Your task to perform on an android device: open sync settings in chrome Image 0: 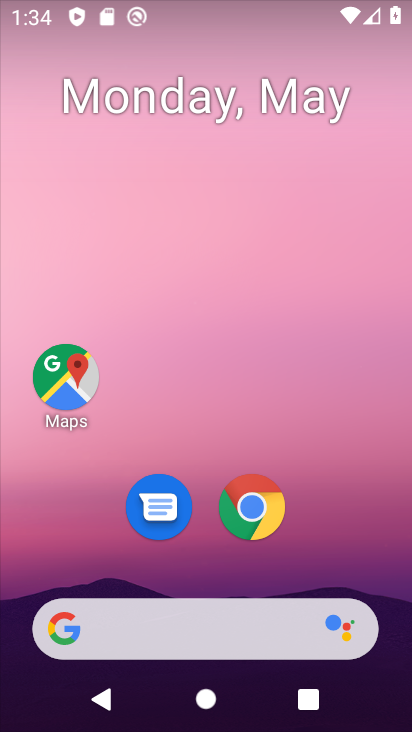
Step 0: drag from (312, 508) to (327, 141)
Your task to perform on an android device: open sync settings in chrome Image 1: 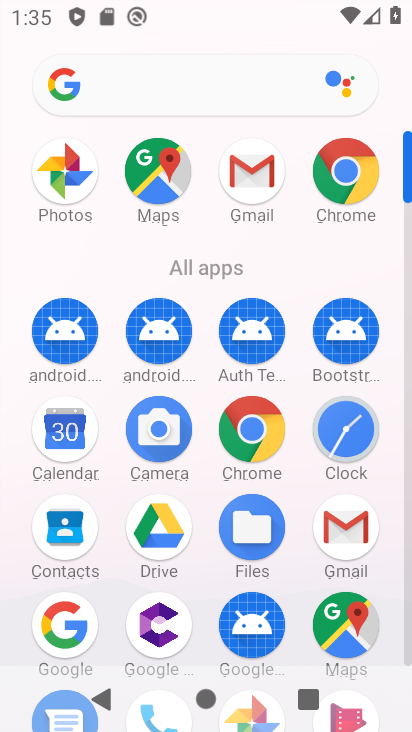
Step 1: click (267, 456)
Your task to perform on an android device: open sync settings in chrome Image 2: 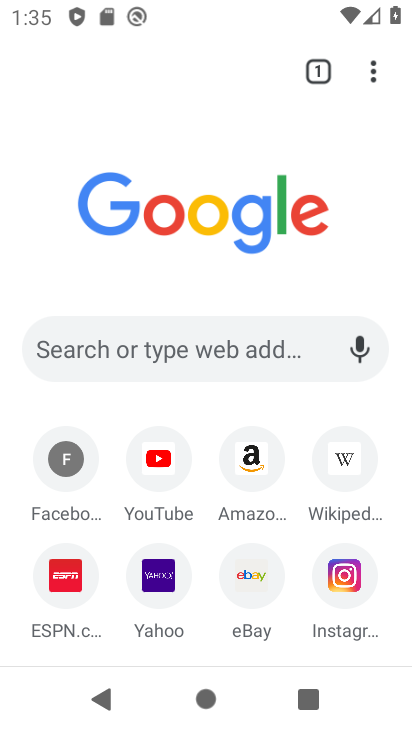
Step 2: drag from (295, 554) to (310, 224)
Your task to perform on an android device: open sync settings in chrome Image 3: 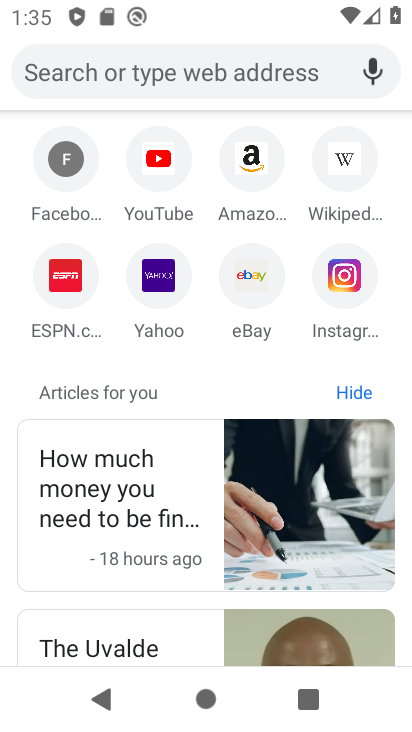
Step 3: drag from (297, 167) to (252, 468)
Your task to perform on an android device: open sync settings in chrome Image 4: 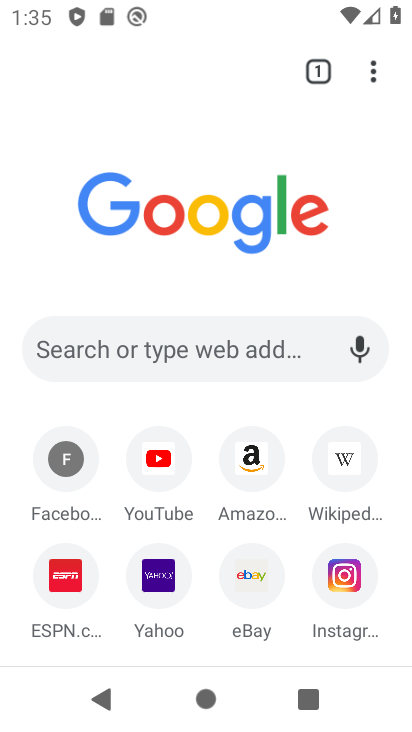
Step 4: click (371, 80)
Your task to perform on an android device: open sync settings in chrome Image 5: 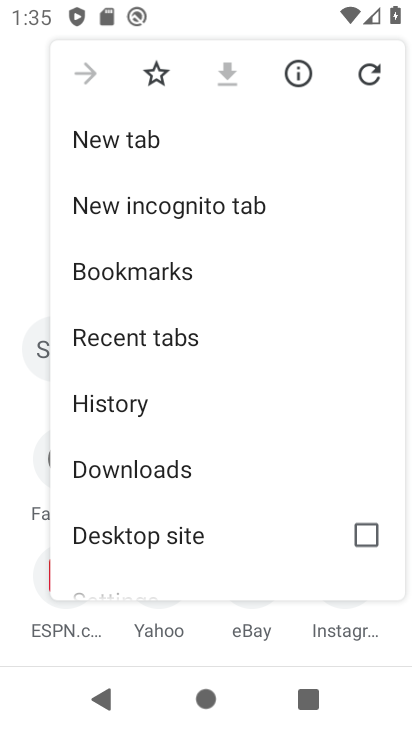
Step 5: drag from (178, 492) to (215, 226)
Your task to perform on an android device: open sync settings in chrome Image 6: 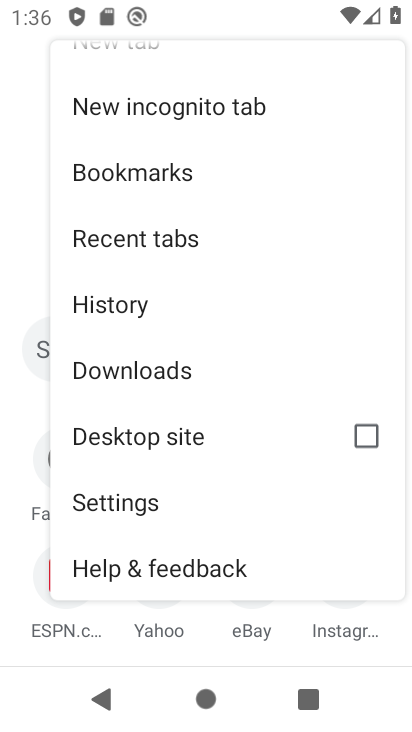
Step 6: click (143, 495)
Your task to perform on an android device: open sync settings in chrome Image 7: 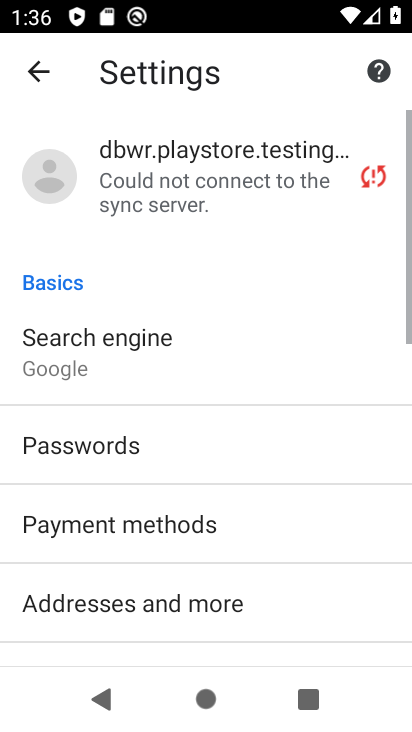
Step 7: drag from (236, 549) to (279, 278)
Your task to perform on an android device: open sync settings in chrome Image 8: 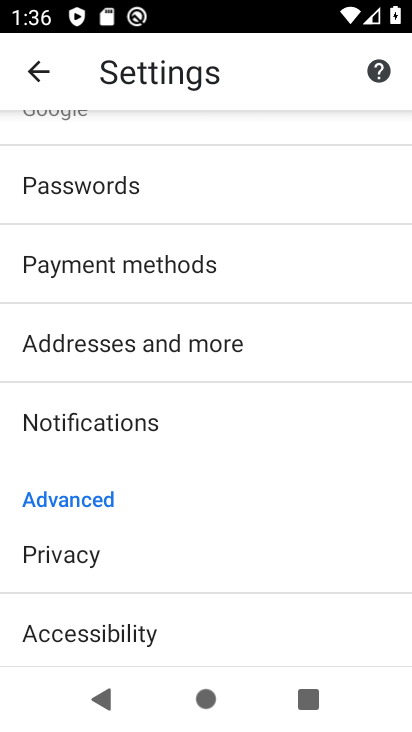
Step 8: drag from (245, 549) to (308, 246)
Your task to perform on an android device: open sync settings in chrome Image 9: 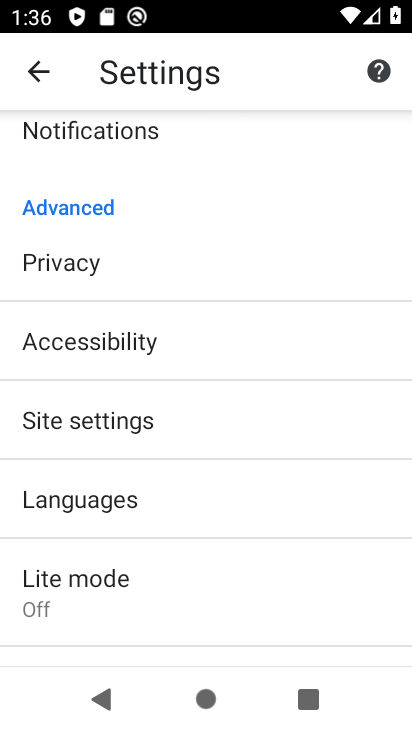
Step 9: click (181, 433)
Your task to perform on an android device: open sync settings in chrome Image 10: 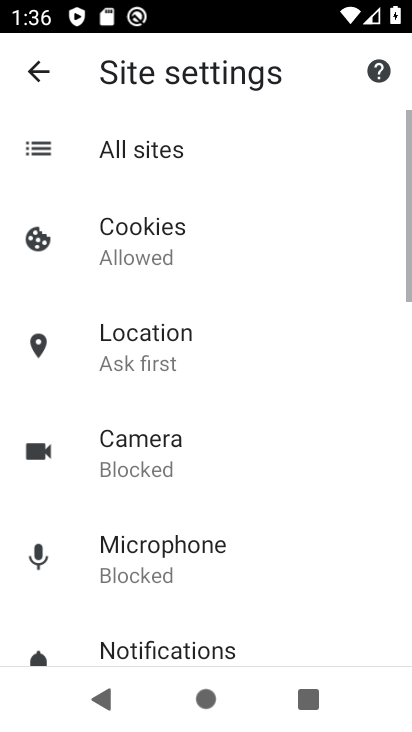
Step 10: drag from (226, 599) to (244, 240)
Your task to perform on an android device: open sync settings in chrome Image 11: 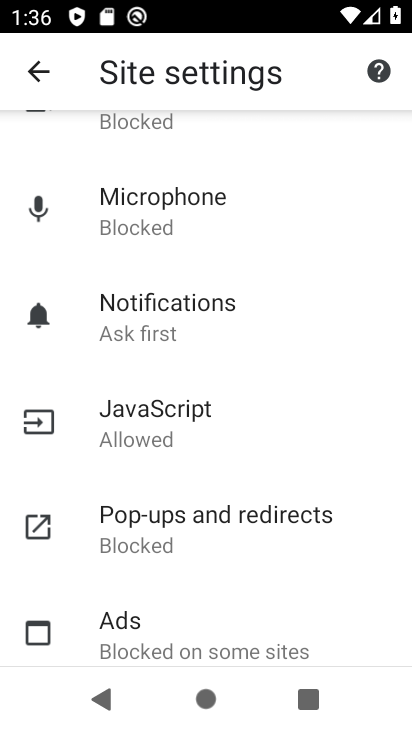
Step 11: drag from (197, 602) to (234, 283)
Your task to perform on an android device: open sync settings in chrome Image 12: 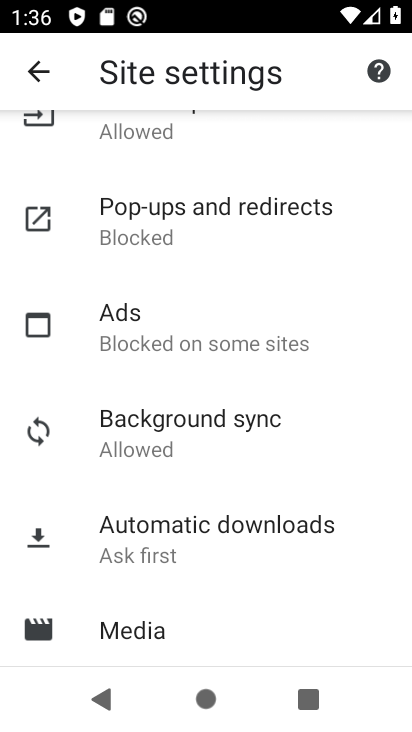
Step 12: click (199, 424)
Your task to perform on an android device: open sync settings in chrome Image 13: 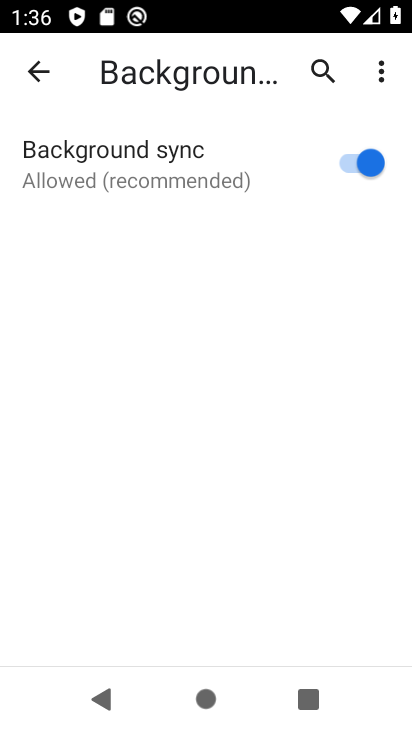
Step 13: task complete